Your task to perform on an android device: find snoozed emails in the gmail app Image 0: 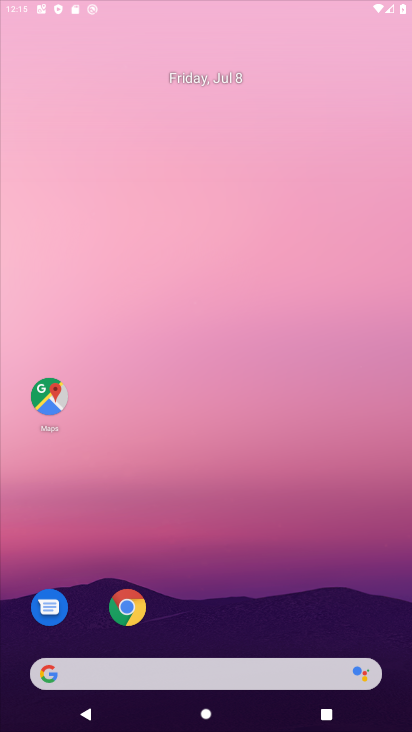
Step 0: click (95, 667)
Your task to perform on an android device: find snoozed emails in the gmail app Image 1: 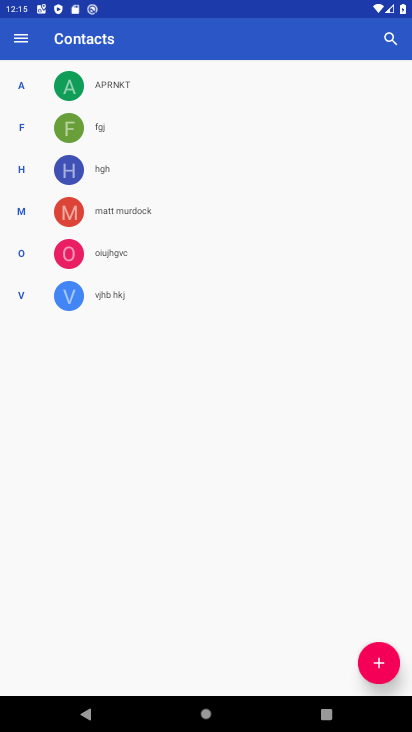
Step 1: press home button
Your task to perform on an android device: find snoozed emails in the gmail app Image 2: 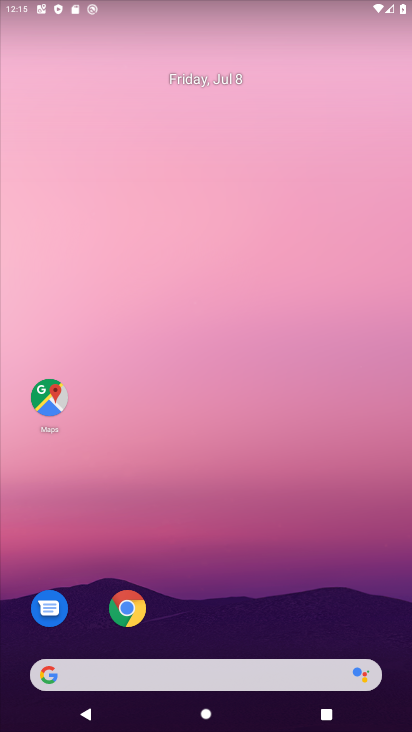
Step 2: drag from (30, 707) to (279, 161)
Your task to perform on an android device: find snoozed emails in the gmail app Image 3: 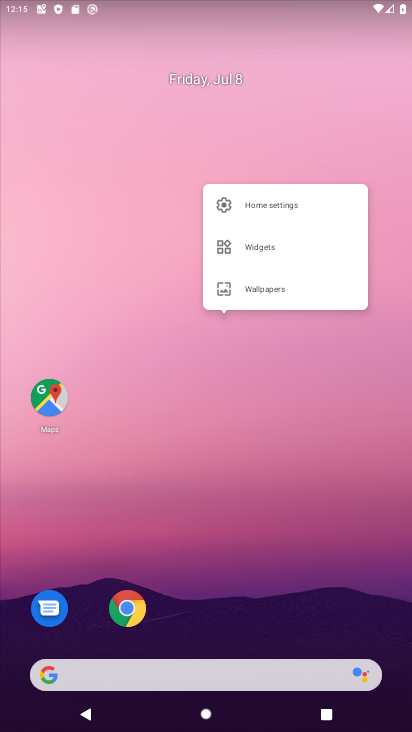
Step 3: drag from (115, 271) to (311, 22)
Your task to perform on an android device: find snoozed emails in the gmail app Image 4: 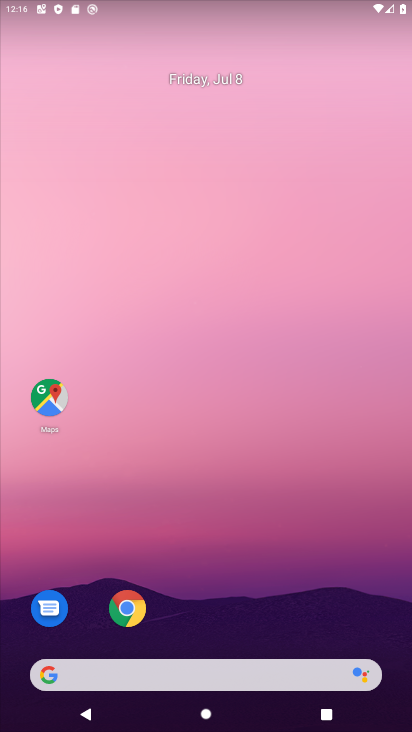
Step 4: drag from (176, 290) to (295, 30)
Your task to perform on an android device: find snoozed emails in the gmail app Image 5: 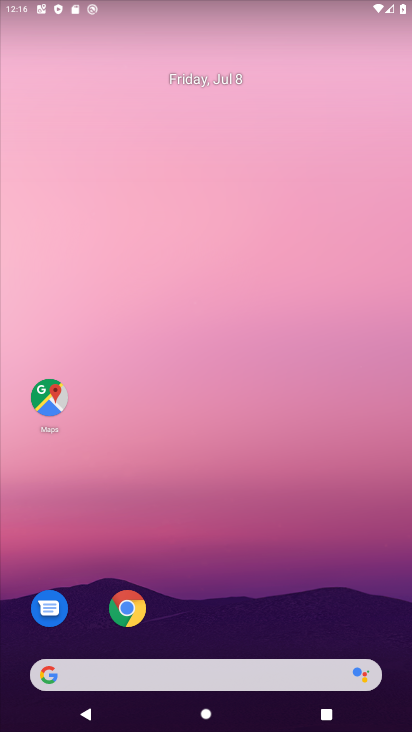
Step 5: drag from (55, 701) to (244, 116)
Your task to perform on an android device: find snoozed emails in the gmail app Image 6: 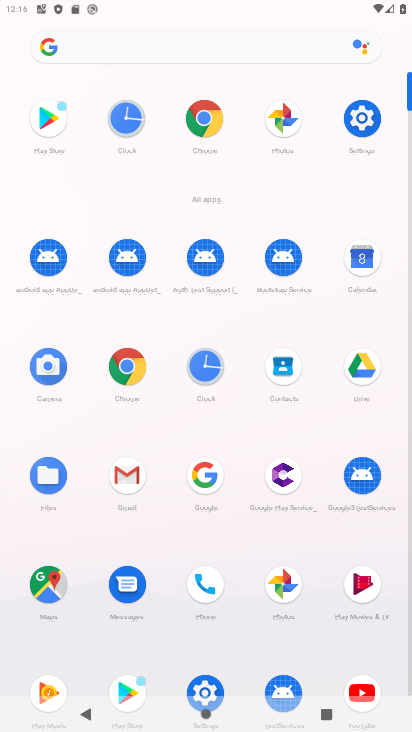
Step 6: click (116, 476)
Your task to perform on an android device: find snoozed emails in the gmail app Image 7: 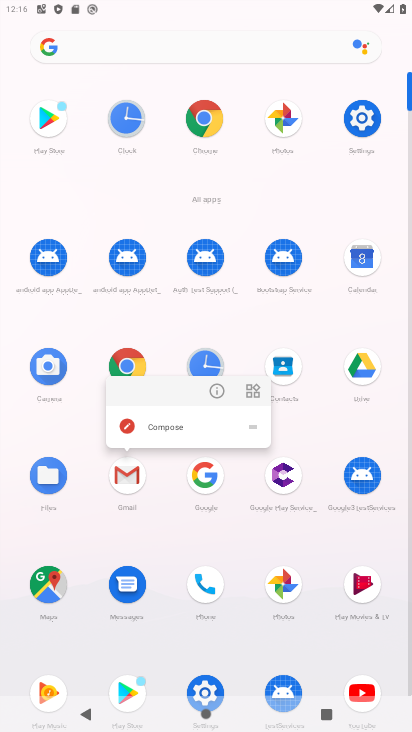
Step 7: click (121, 482)
Your task to perform on an android device: find snoozed emails in the gmail app Image 8: 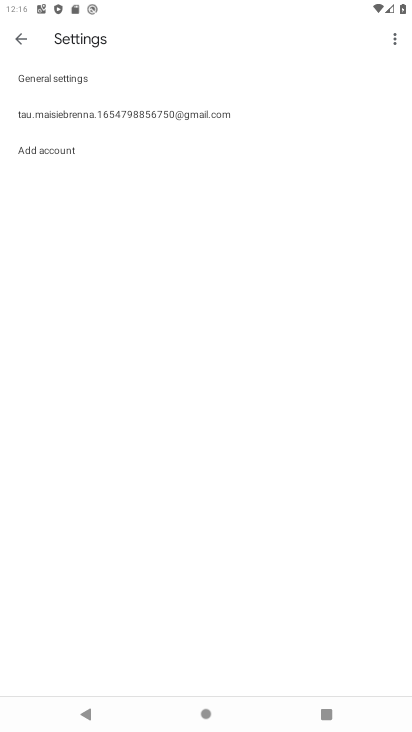
Step 8: click (18, 39)
Your task to perform on an android device: find snoozed emails in the gmail app Image 9: 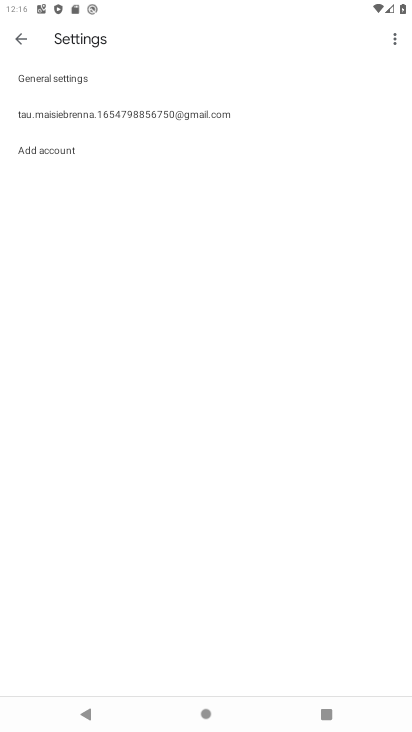
Step 9: click (28, 36)
Your task to perform on an android device: find snoozed emails in the gmail app Image 10: 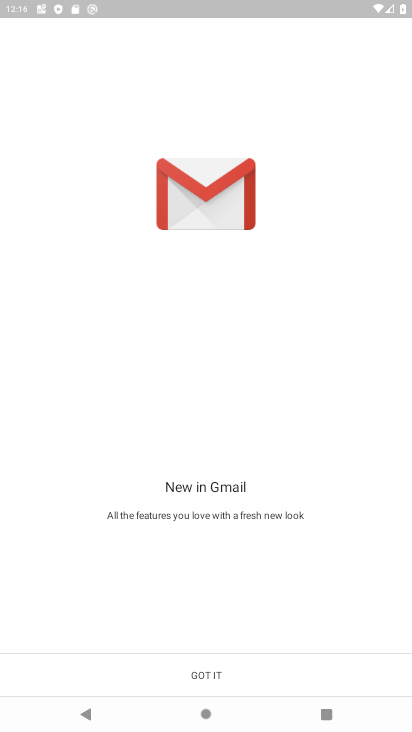
Step 10: click (205, 683)
Your task to perform on an android device: find snoozed emails in the gmail app Image 11: 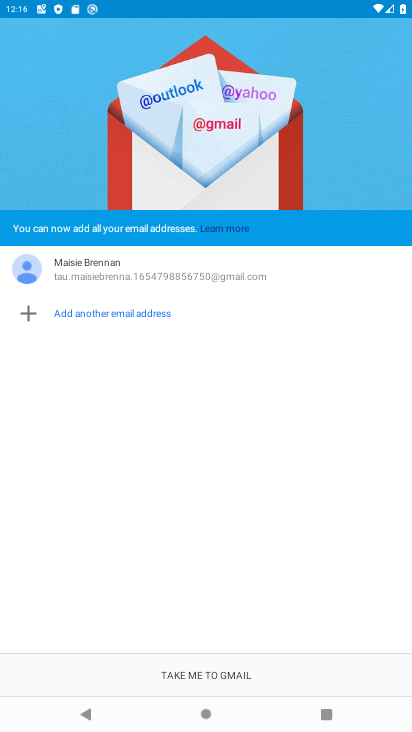
Step 11: click (173, 679)
Your task to perform on an android device: find snoozed emails in the gmail app Image 12: 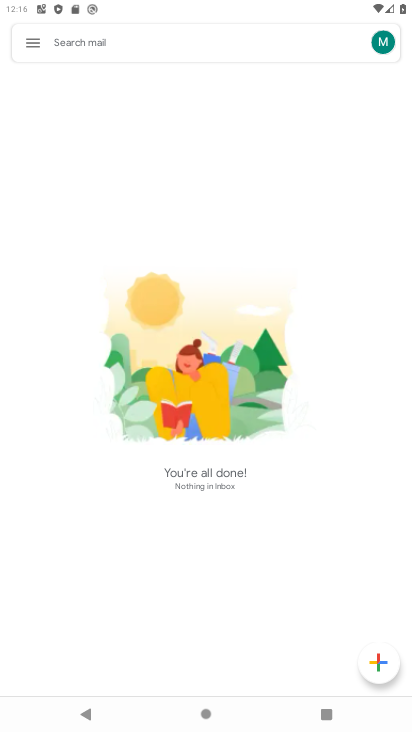
Step 12: click (31, 43)
Your task to perform on an android device: find snoozed emails in the gmail app Image 13: 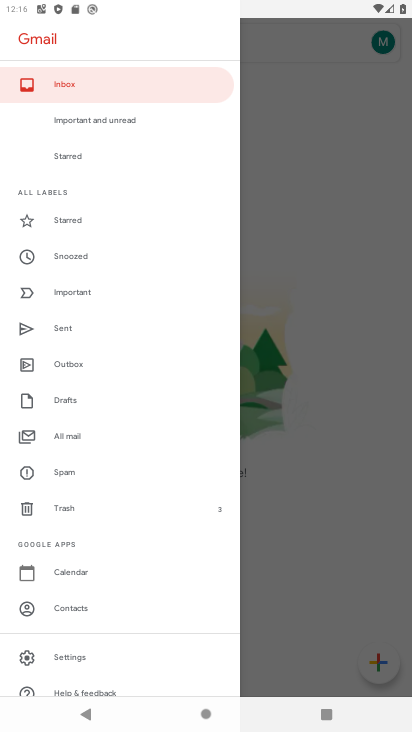
Step 13: click (60, 260)
Your task to perform on an android device: find snoozed emails in the gmail app Image 14: 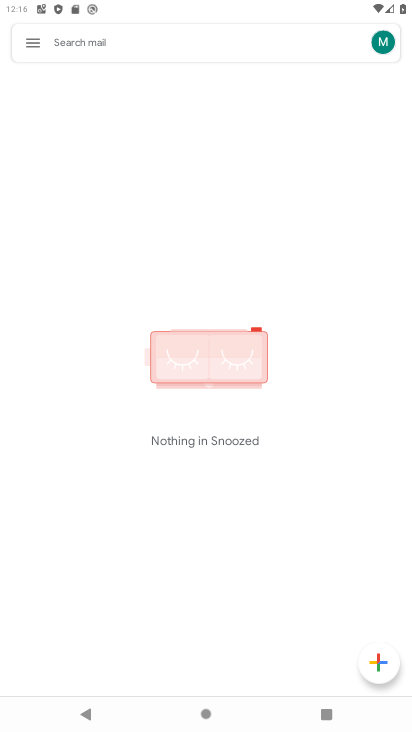
Step 14: task complete